Your task to perform on an android device: toggle priority inbox in the gmail app Image 0: 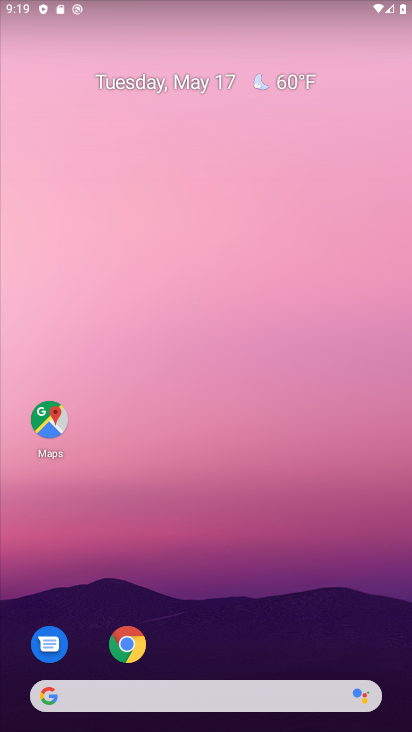
Step 0: drag from (220, 640) to (275, 90)
Your task to perform on an android device: toggle priority inbox in the gmail app Image 1: 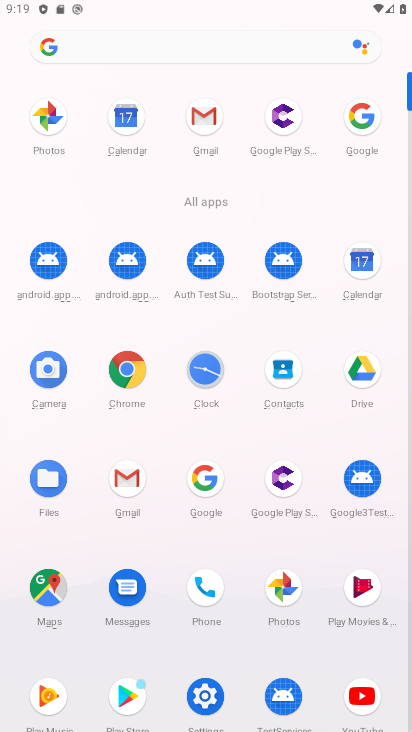
Step 1: click (214, 117)
Your task to perform on an android device: toggle priority inbox in the gmail app Image 2: 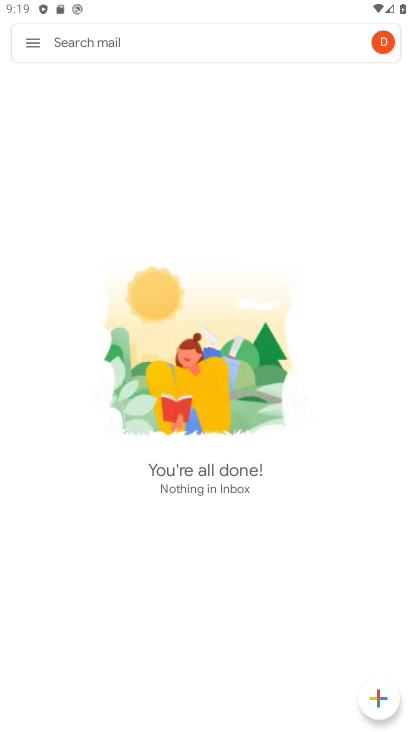
Step 2: click (27, 46)
Your task to perform on an android device: toggle priority inbox in the gmail app Image 3: 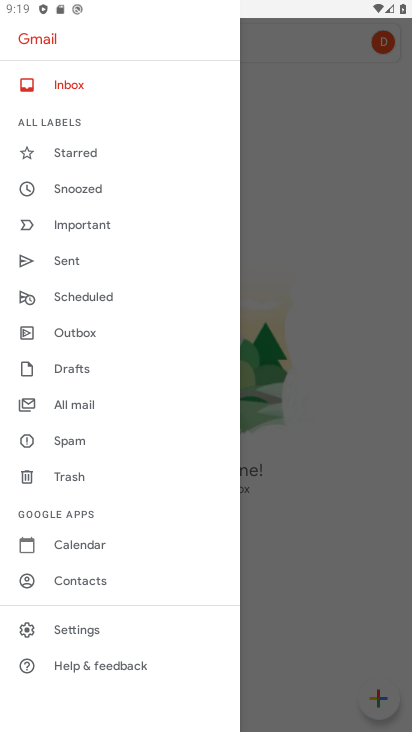
Step 3: click (90, 625)
Your task to perform on an android device: toggle priority inbox in the gmail app Image 4: 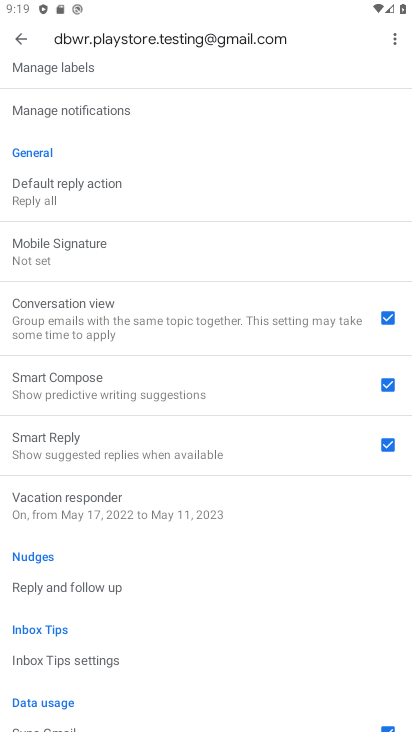
Step 4: click (136, 678)
Your task to perform on an android device: toggle priority inbox in the gmail app Image 5: 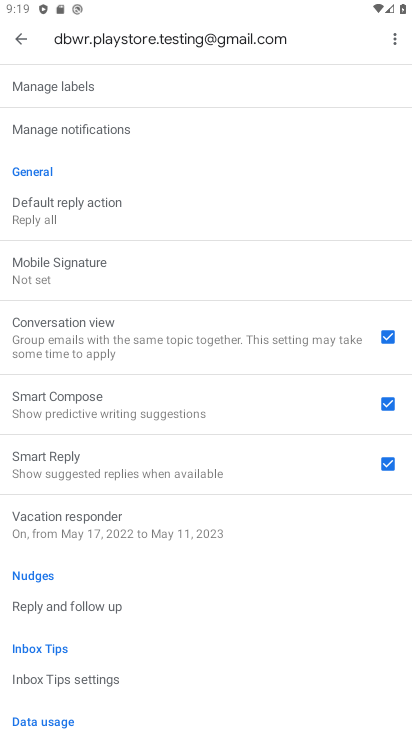
Step 5: drag from (147, 205) to (118, 525)
Your task to perform on an android device: toggle priority inbox in the gmail app Image 6: 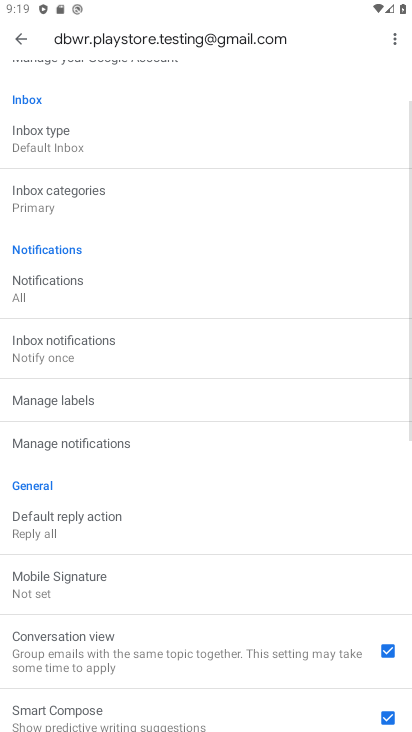
Step 6: click (66, 140)
Your task to perform on an android device: toggle priority inbox in the gmail app Image 7: 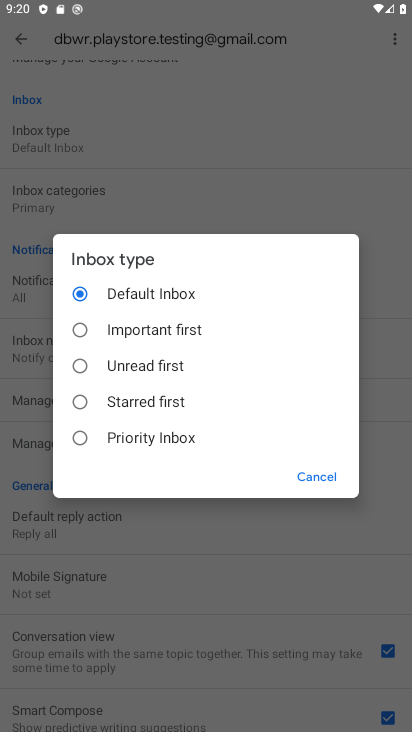
Step 7: click (150, 438)
Your task to perform on an android device: toggle priority inbox in the gmail app Image 8: 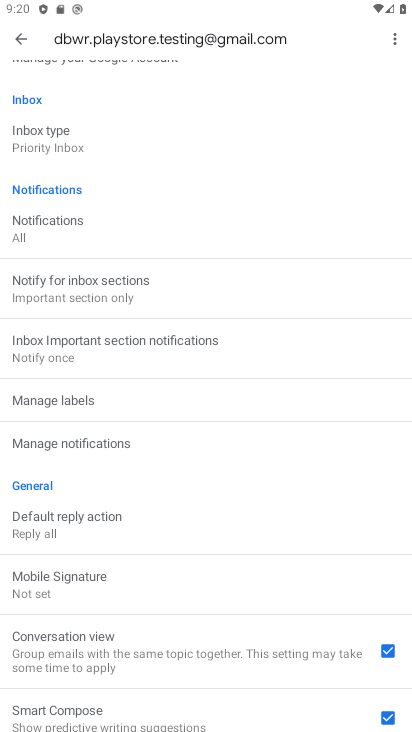
Step 8: task complete